Your task to perform on an android device: open chrome privacy settings Image 0: 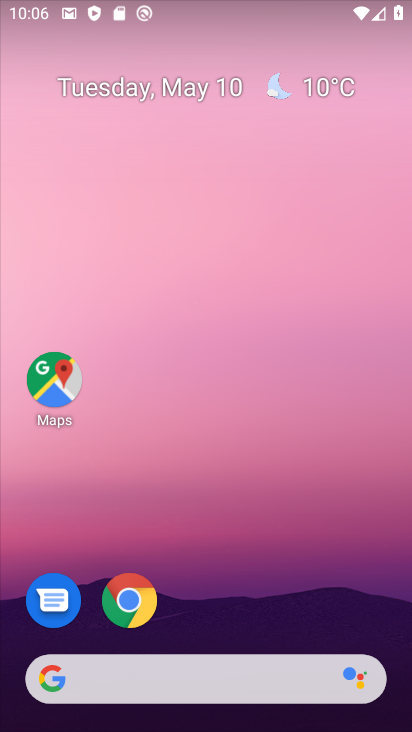
Step 0: drag from (219, 506) to (210, 7)
Your task to perform on an android device: open chrome privacy settings Image 1: 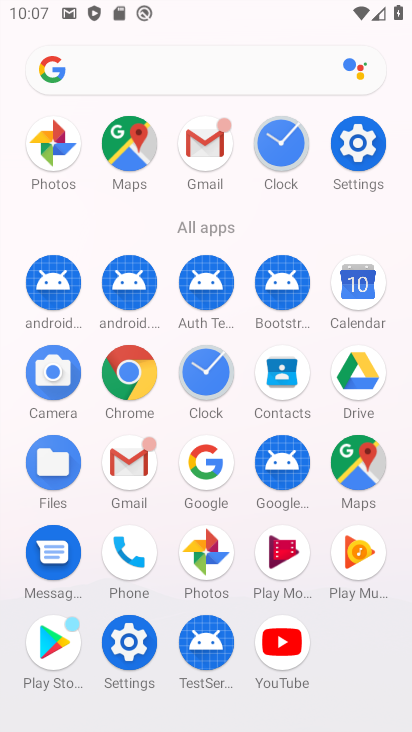
Step 1: click (128, 371)
Your task to perform on an android device: open chrome privacy settings Image 2: 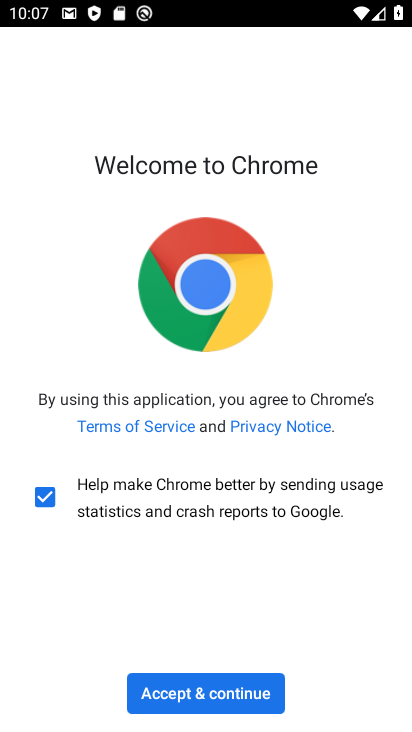
Step 2: click (205, 690)
Your task to perform on an android device: open chrome privacy settings Image 3: 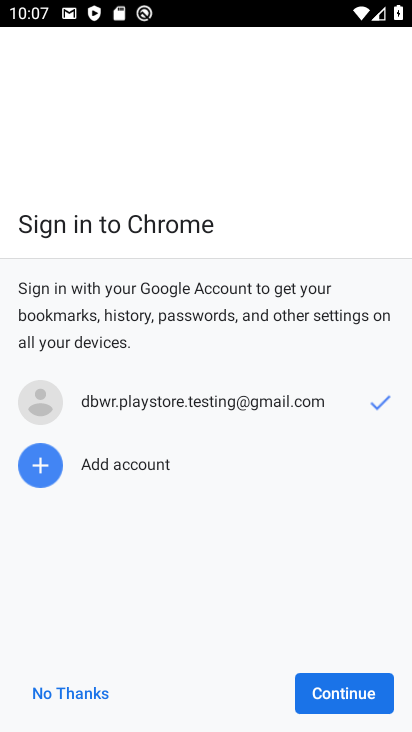
Step 3: click (351, 687)
Your task to perform on an android device: open chrome privacy settings Image 4: 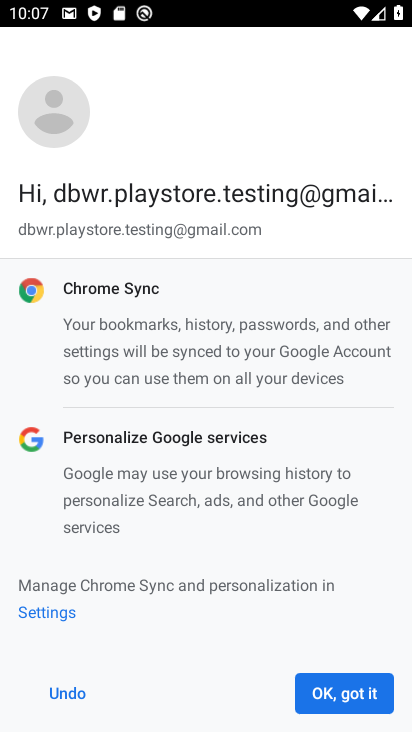
Step 4: click (351, 702)
Your task to perform on an android device: open chrome privacy settings Image 5: 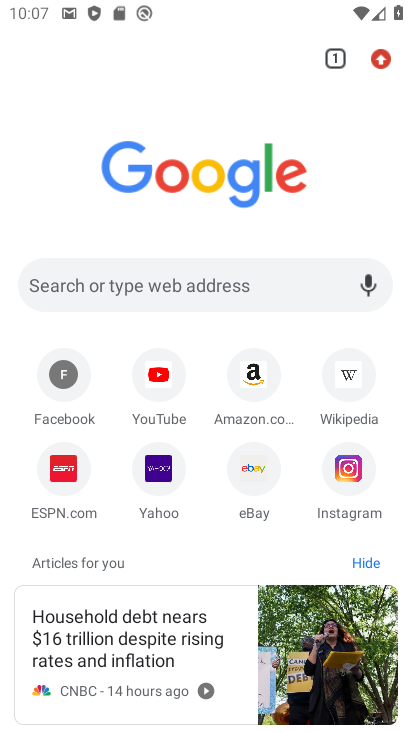
Step 5: drag from (378, 61) to (173, 543)
Your task to perform on an android device: open chrome privacy settings Image 6: 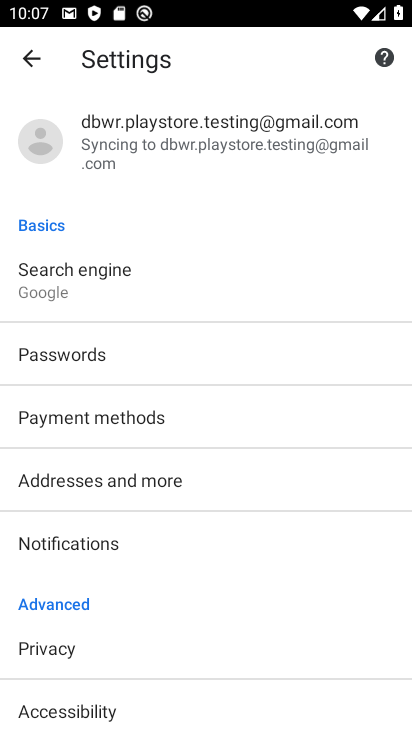
Step 6: click (80, 641)
Your task to perform on an android device: open chrome privacy settings Image 7: 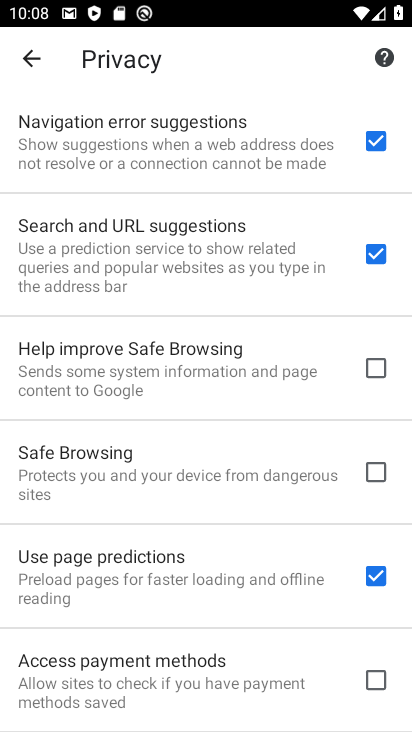
Step 7: task complete